Your task to perform on an android device: delete the emails in spam in the gmail app Image 0: 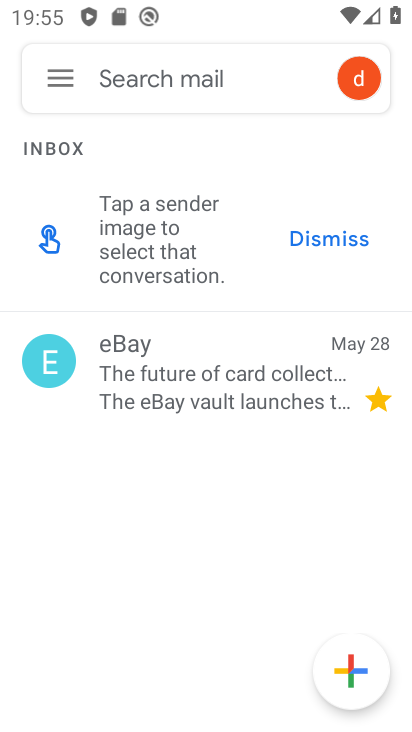
Step 0: click (238, 368)
Your task to perform on an android device: delete the emails in spam in the gmail app Image 1: 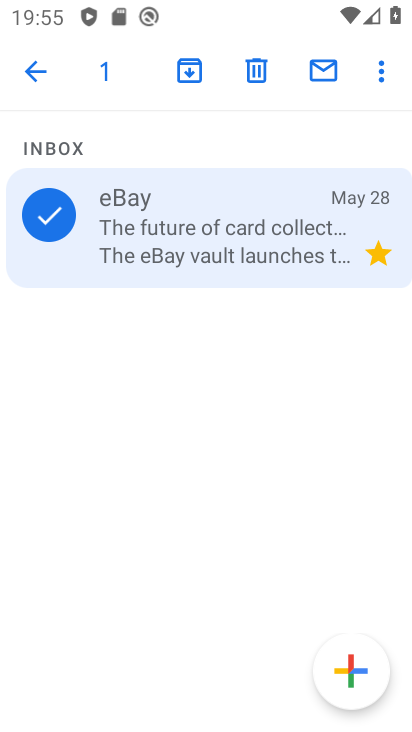
Step 1: click (248, 81)
Your task to perform on an android device: delete the emails in spam in the gmail app Image 2: 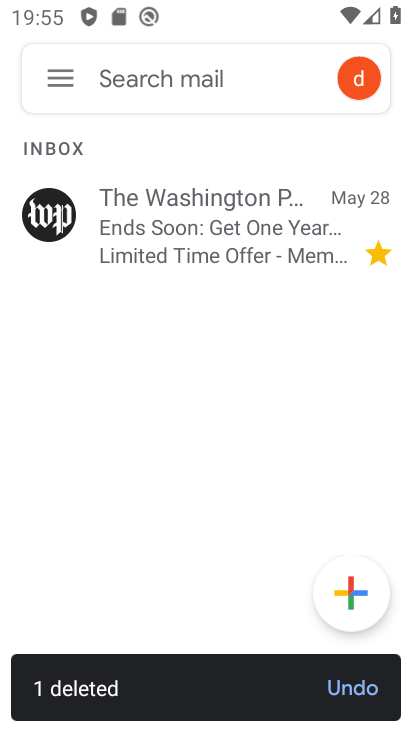
Step 2: task complete